Your task to perform on an android device: Open Android settings Image 0: 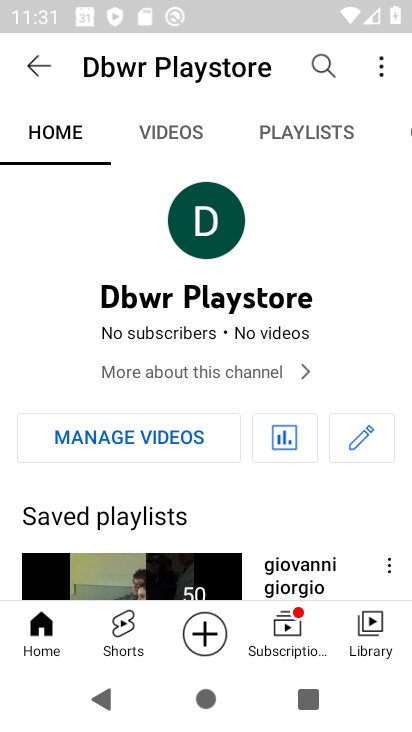
Step 0: press home button
Your task to perform on an android device: Open Android settings Image 1: 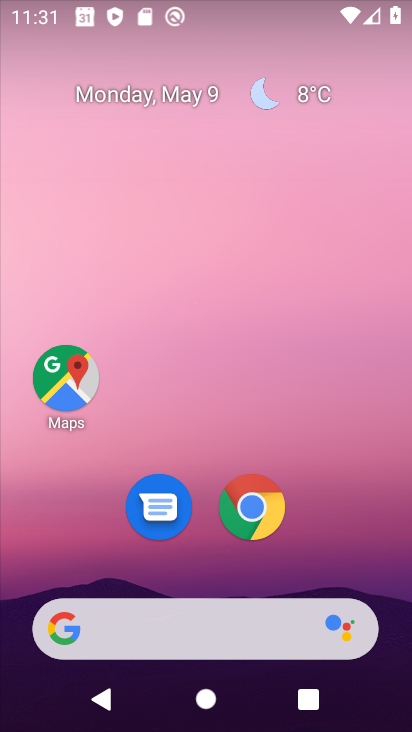
Step 1: drag from (293, 550) to (274, 66)
Your task to perform on an android device: Open Android settings Image 2: 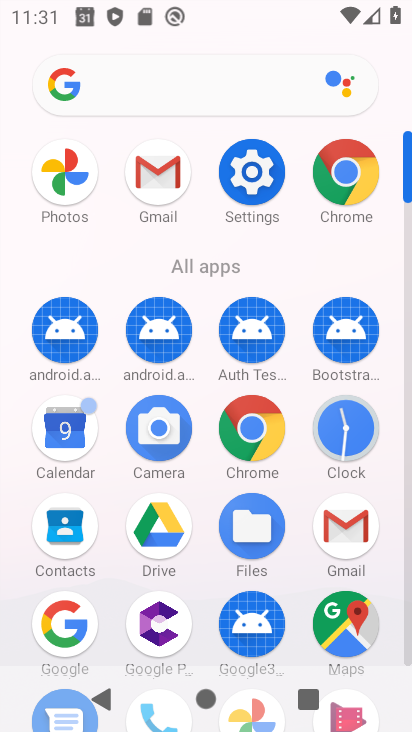
Step 2: click (264, 178)
Your task to perform on an android device: Open Android settings Image 3: 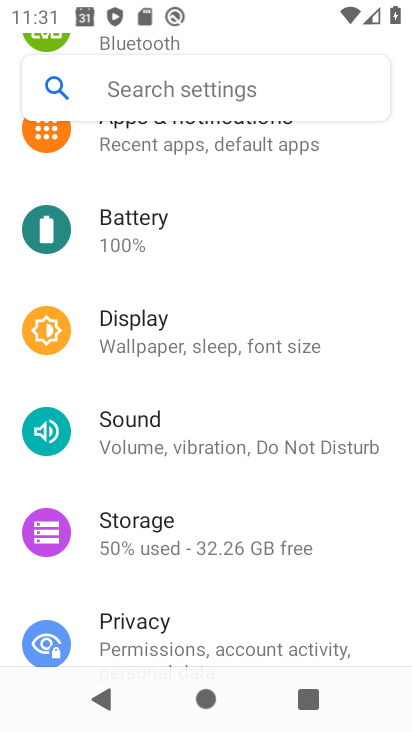
Step 3: drag from (252, 595) to (241, 195)
Your task to perform on an android device: Open Android settings Image 4: 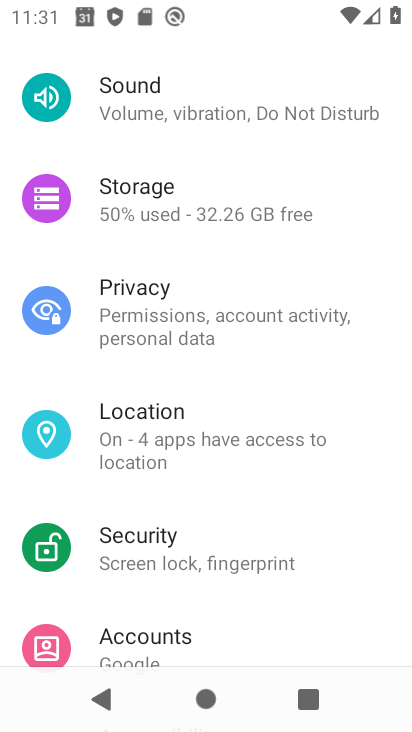
Step 4: drag from (298, 626) to (285, 302)
Your task to perform on an android device: Open Android settings Image 5: 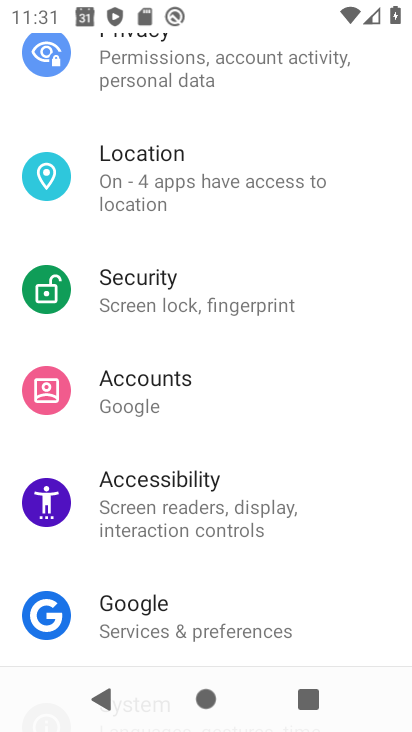
Step 5: drag from (277, 625) to (287, 316)
Your task to perform on an android device: Open Android settings Image 6: 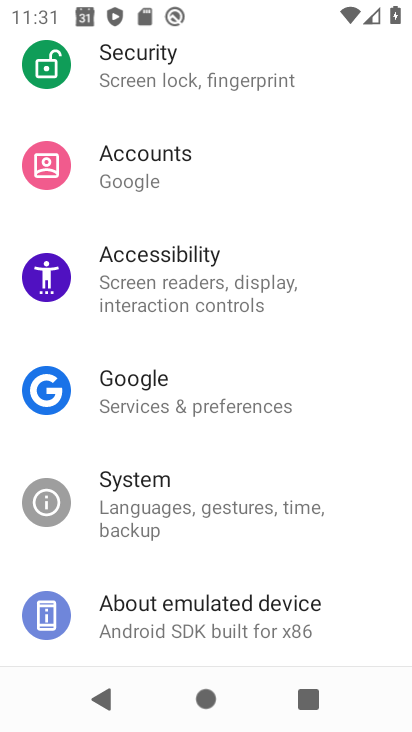
Step 6: click (278, 611)
Your task to perform on an android device: Open Android settings Image 7: 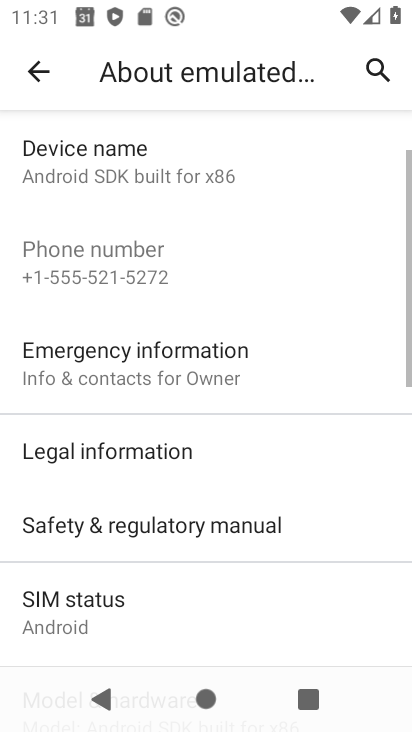
Step 7: drag from (279, 591) to (263, 270)
Your task to perform on an android device: Open Android settings Image 8: 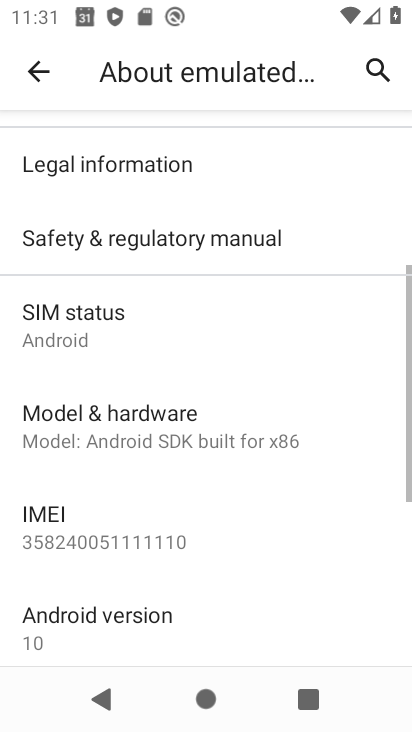
Step 8: click (168, 614)
Your task to perform on an android device: Open Android settings Image 9: 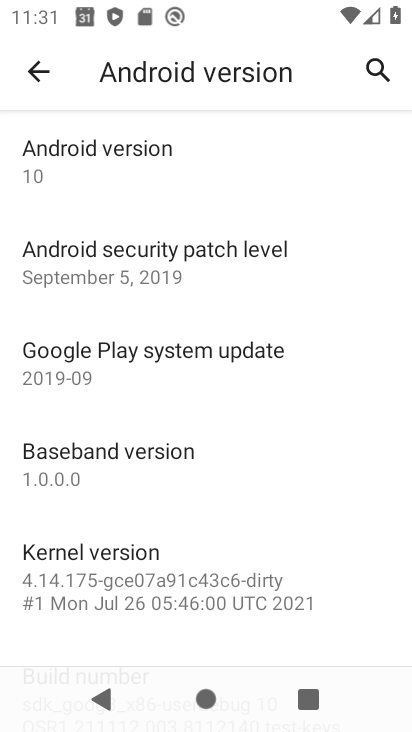
Step 9: task complete